Your task to perform on an android device: move an email to a new category in the gmail app Image 0: 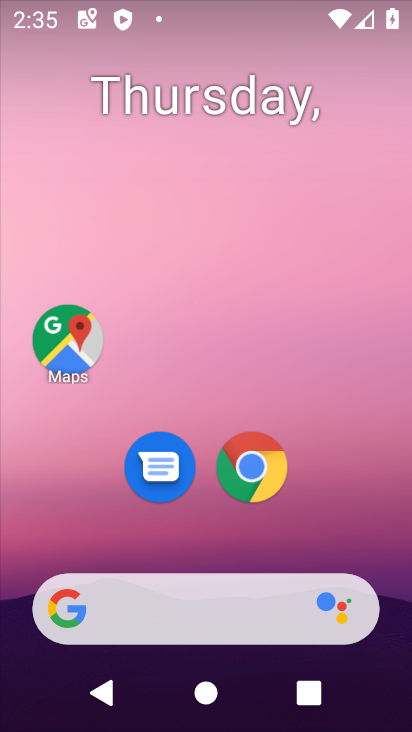
Step 0: drag from (226, 564) to (190, 214)
Your task to perform on an android device: move an email to a new category in the gmail app Image 1: 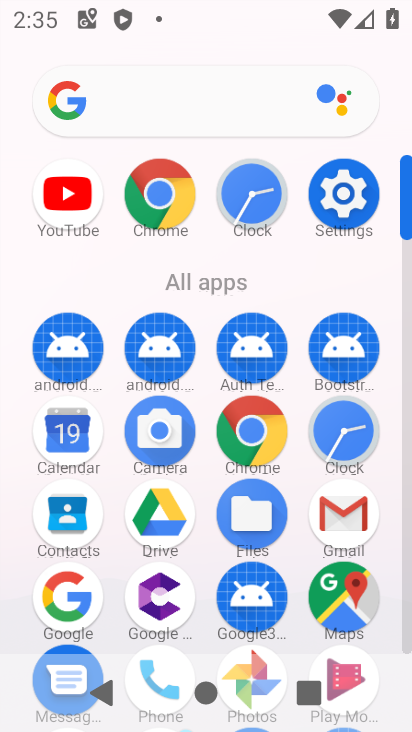
Step 1: click (344, 505)
Your task to perform on an android device: move an email to a new category in the gmail app Image 2: 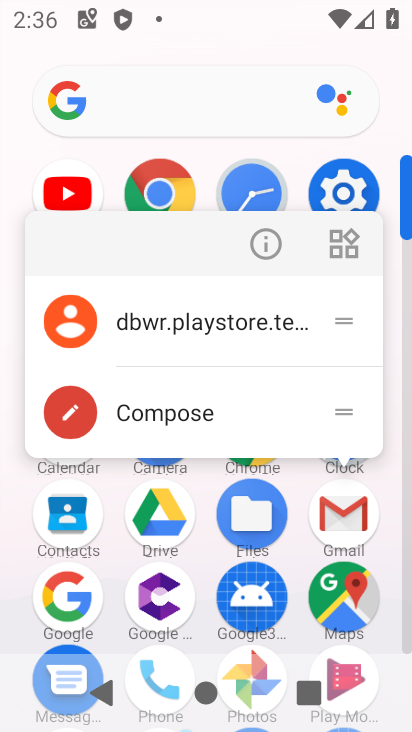
Step 2: click (182, 317)
Your task to perform on an android device: move an email to a new category in the gmail app Image 3: 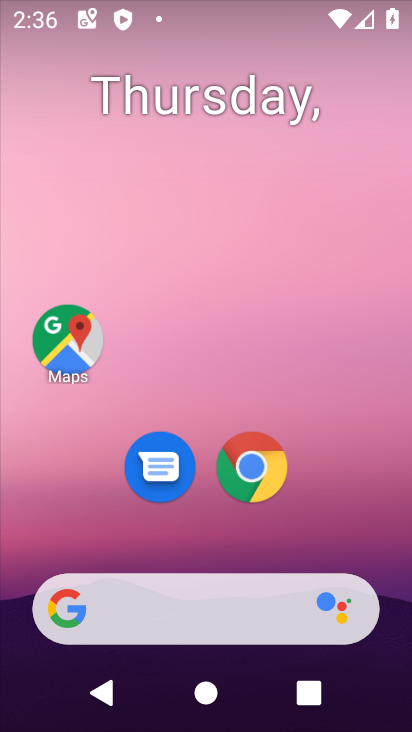
Step 3: drag from (229, 545) to (273, 47)
Your task to perform on an android device: move an email to a new category in the gmail app Image 4: 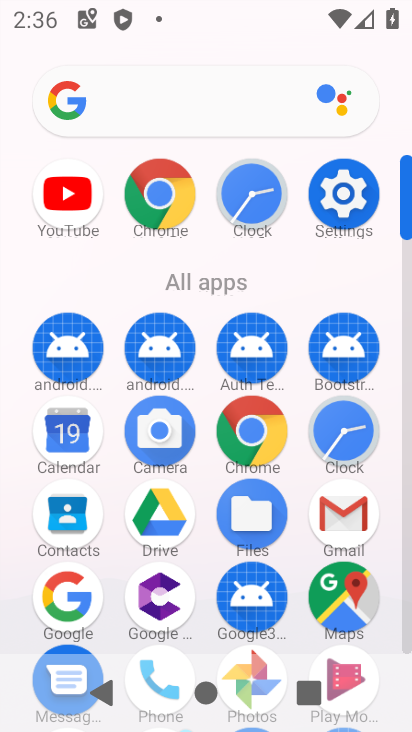
Step 4: click (351, 518)
Your task to perform on an android device: move an email to a new category in the gmail app Image 5: 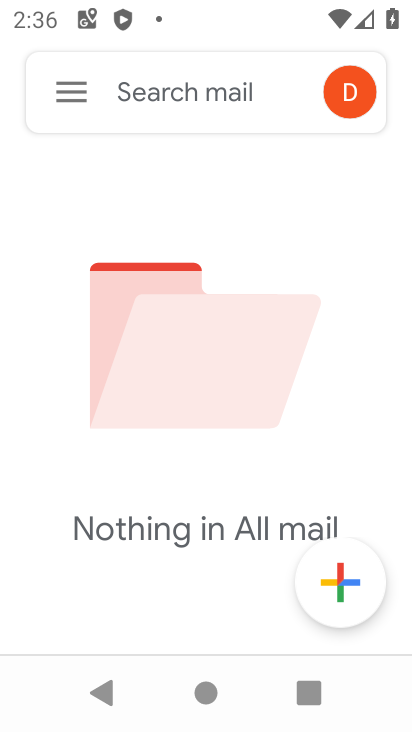
Step 5: click (61, 103)
Your task to perform on an android device: move an email to a new category in the gmail app Image 6: 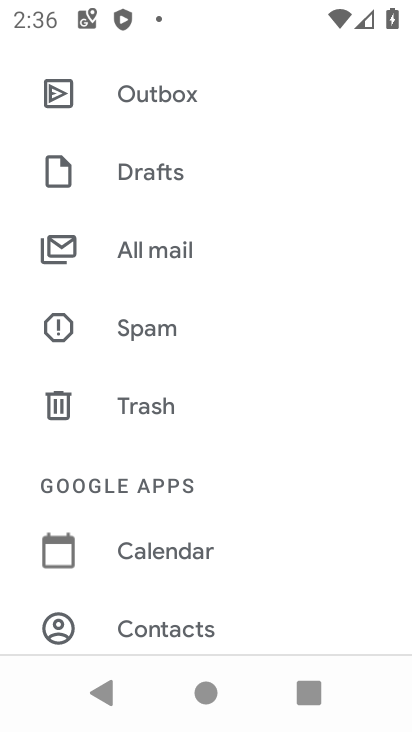
Step 6: task complete